Your task to perform on an android device: open app "LinkedIn" (install if not already installed) Image 0: 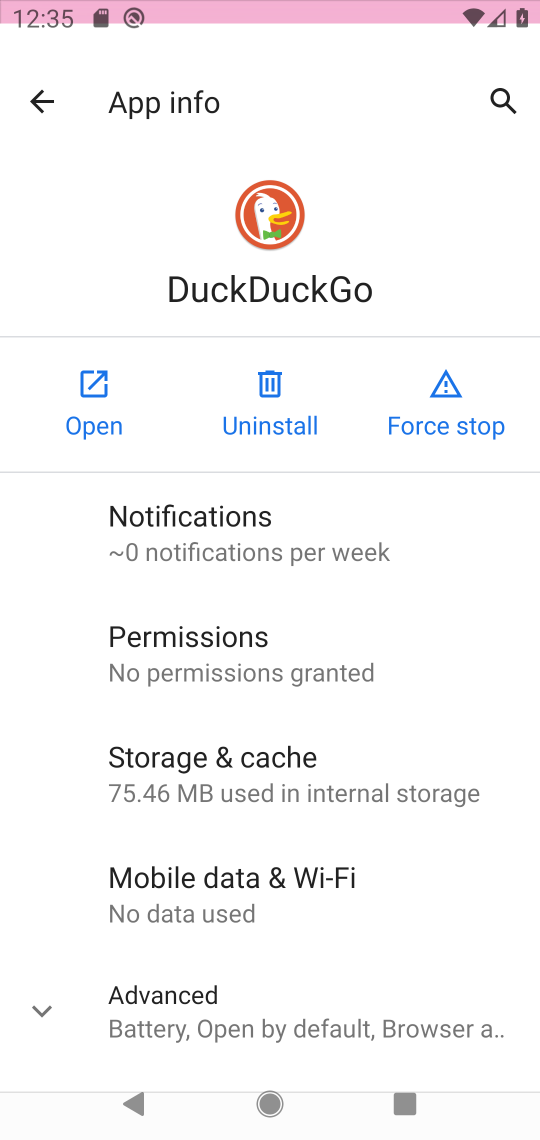
Step 0: press home button
Your task to perform on an android device: open app "LinkedIn" (install if not already installed) Image 1: 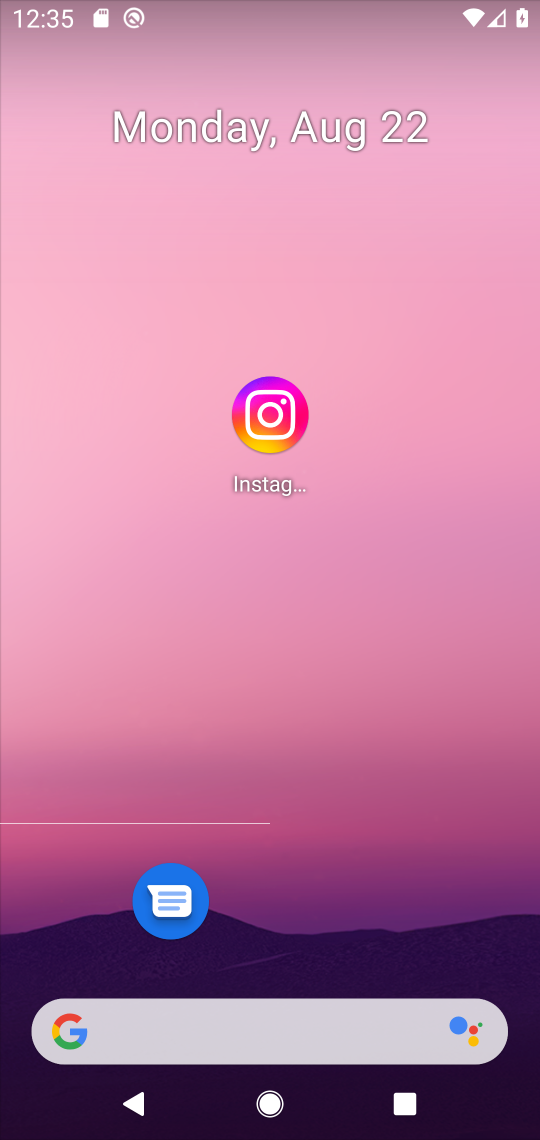
Step 1: drag from (378, 973) to (384, 117)
Your task to perform on an android device: open app "LinkedIn" (install if not already installed) Image 2: 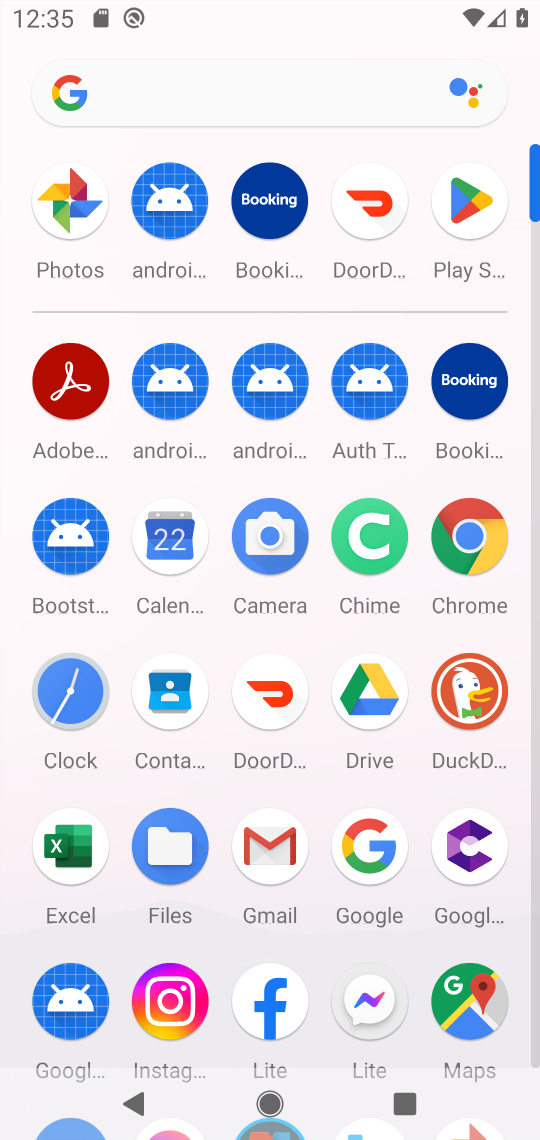
Step 2: click (436, 235)
Your task to perform on an android device: open app "LinkedIn" (install if not already installed) Image 3: 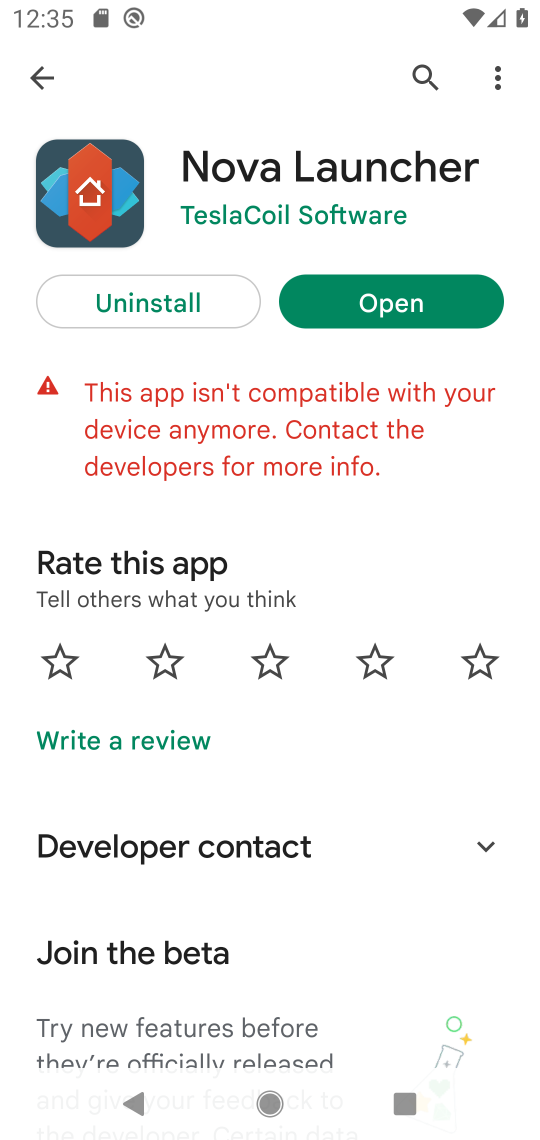
Step 3: click (406, 83)
Your task to perform on an android device: open app "LinkedIn" (install if not already installed) Image 4: 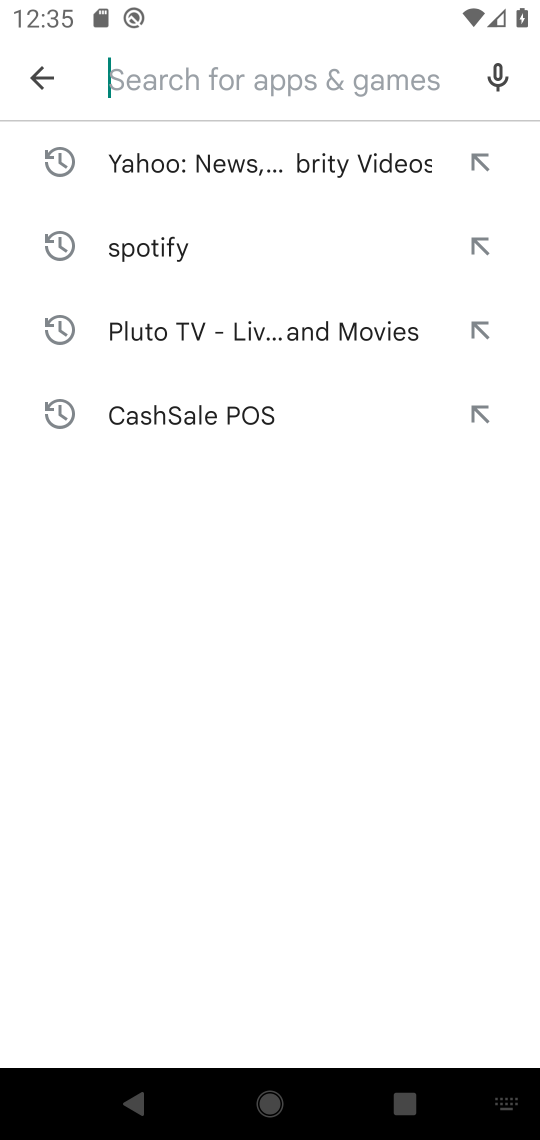
Step 4: click (331, 91)
Your task to perform on an android device: open app "LinkedIn" (install if not already installed) Image 5: 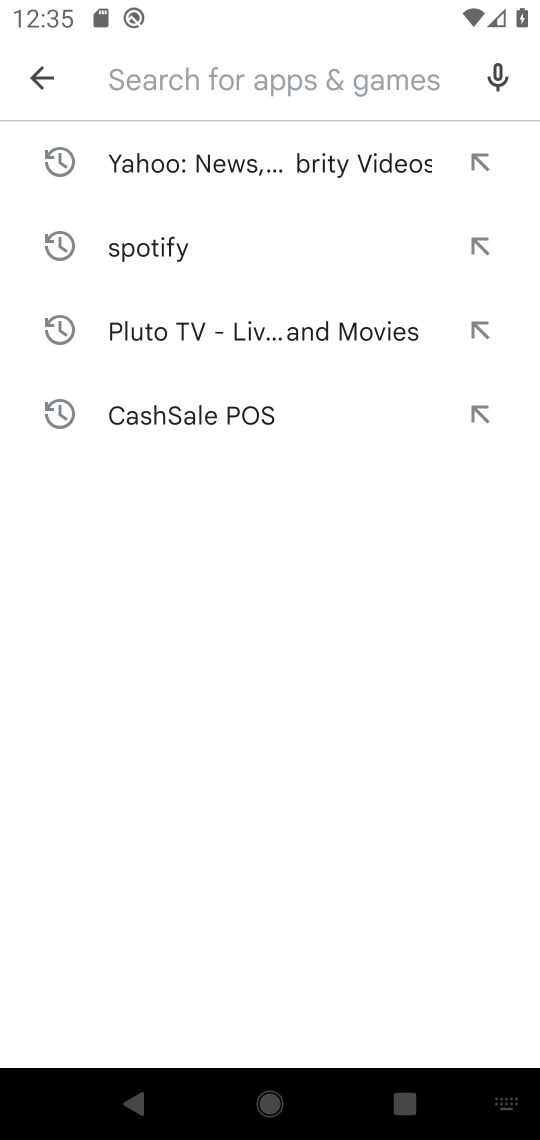
Step 5: type "linkedin"
Your task to perform on an android device: open app "LinkedIn" (install if not already installed) Image 6: 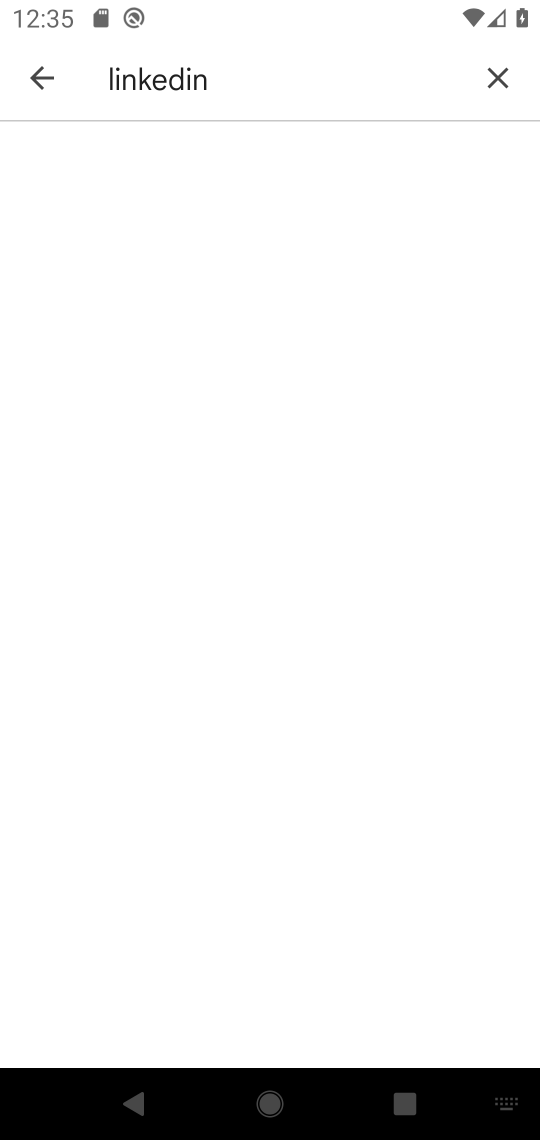
Step 6: task complete